Your task to perform on an android device: delete location history Image 0: 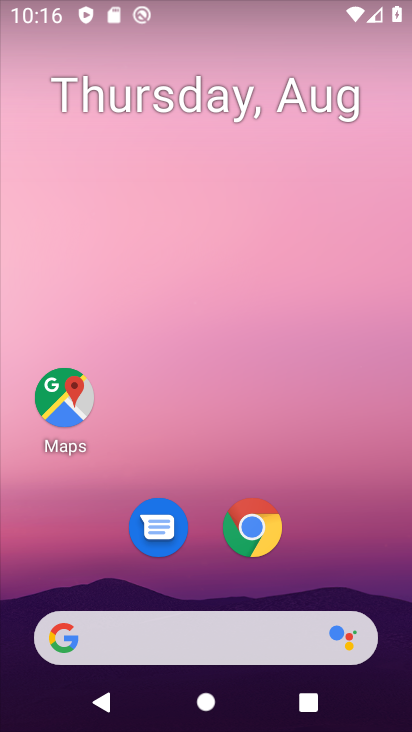
Step 0: drag from (178, 702) to (294, 40)
Your task to perform on an android device: delete location history Image 1: 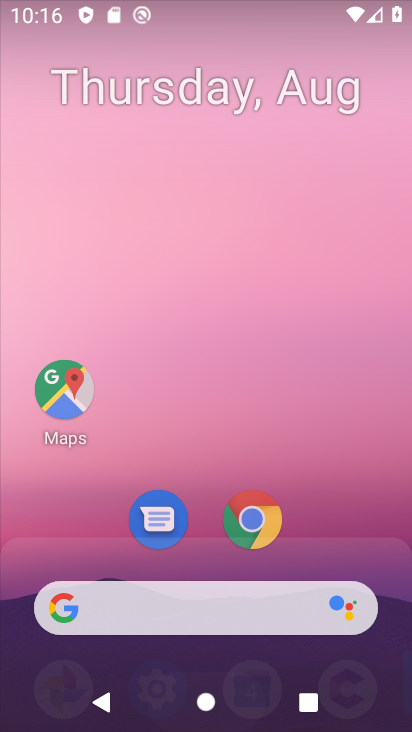
Step 1: click (294, 40)
Your task to perform on an android device: delete location history Image 2: 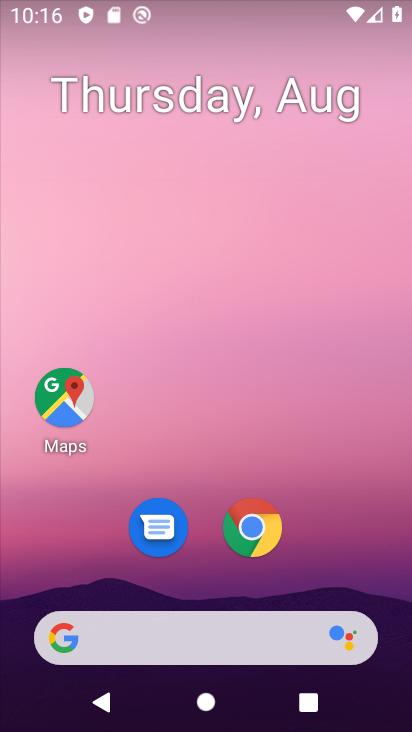
Step 2: click (87, 391)
Your task to perform on an android device: delete location history Image 3: 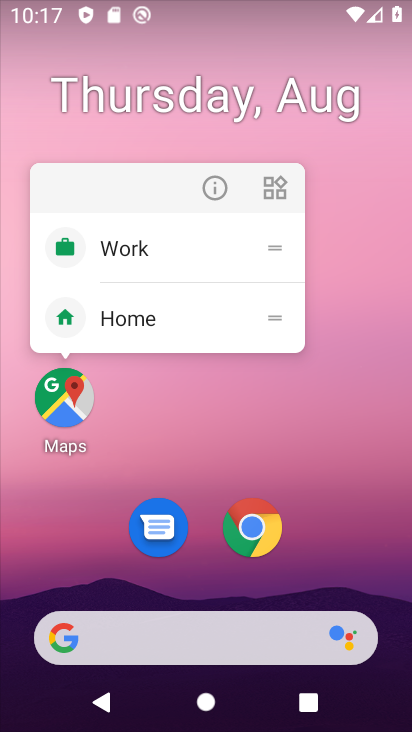
Step 3: click (56, 397)
Your task to perform on an android device: delete location history Image 4: 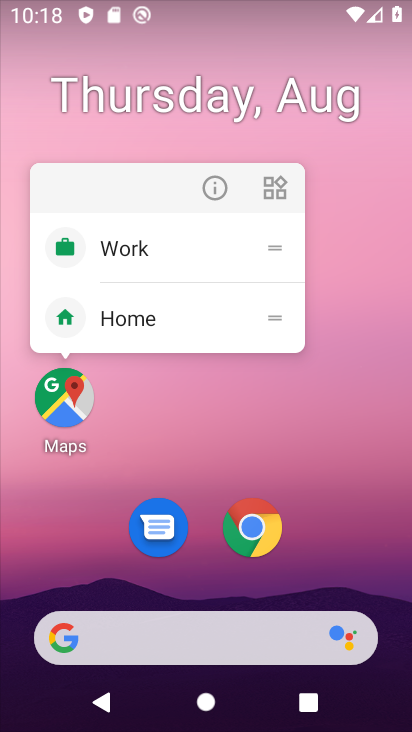
Step 4: click (63, 367)
Your task to perform on an android device: delete location history Image 5: 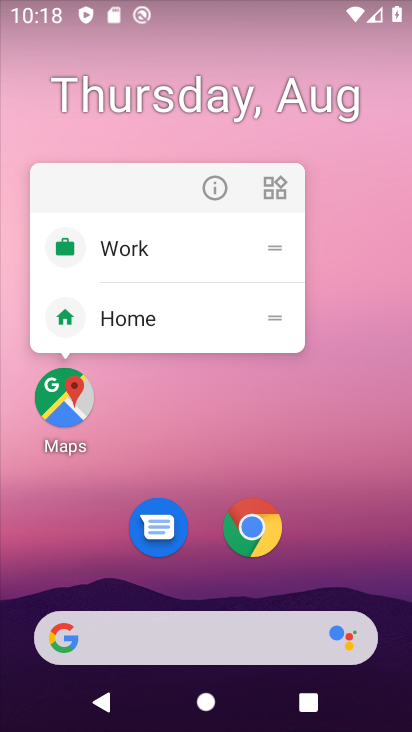
Step 5: click (63, 367)
Your task to perform on an android device: delete location history Image 6: 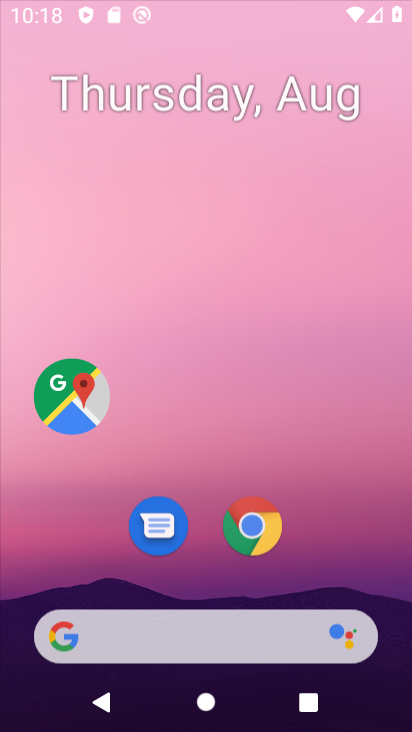
Step 6: click (61, 384)
Your task to perform on an android device: delete location history Image 7: 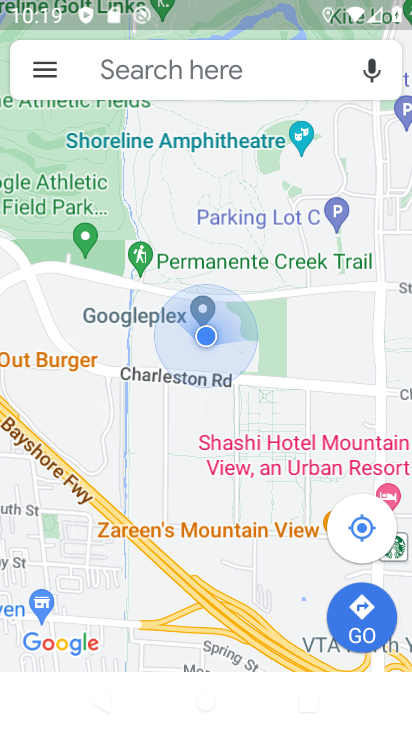
Step 7: click (60, 73)
Your task to perform on an android device: delete location history Image 8: 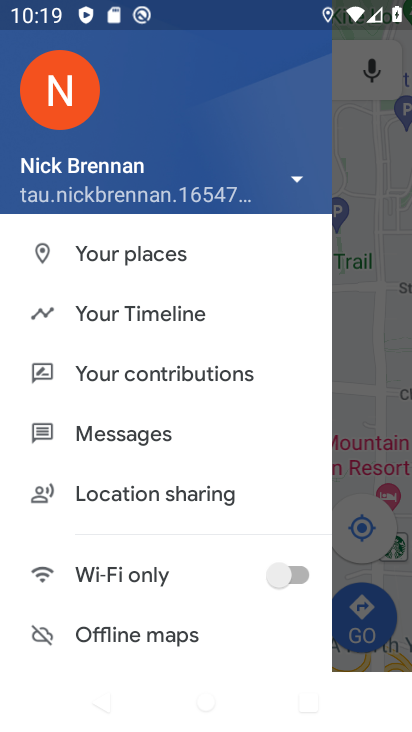
Step 8: click (212, 308)
Your task to perform on an android device: delete location history Image 9: 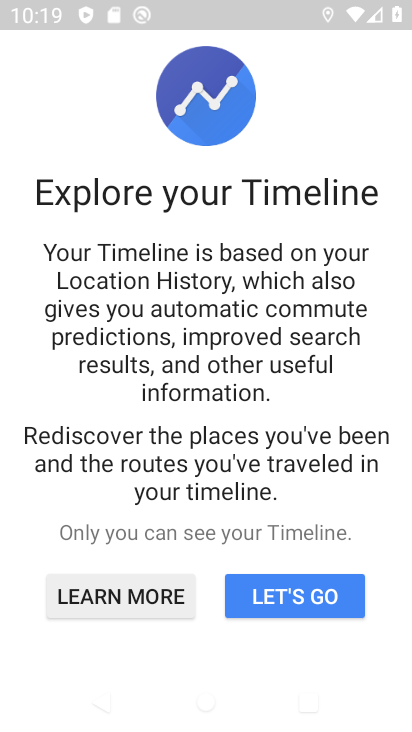
Step 9: click (332, 608)
Your task to perform on an android device: delete location history Image 10: 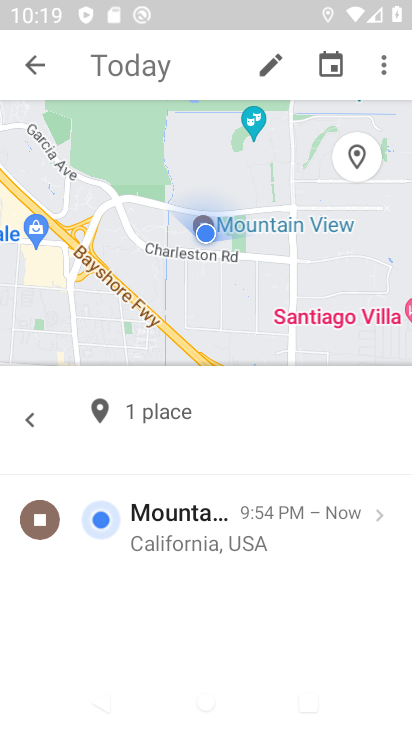
Step 10: click (383, 61)
Your task to perform on an android device: delete location history Image 11: 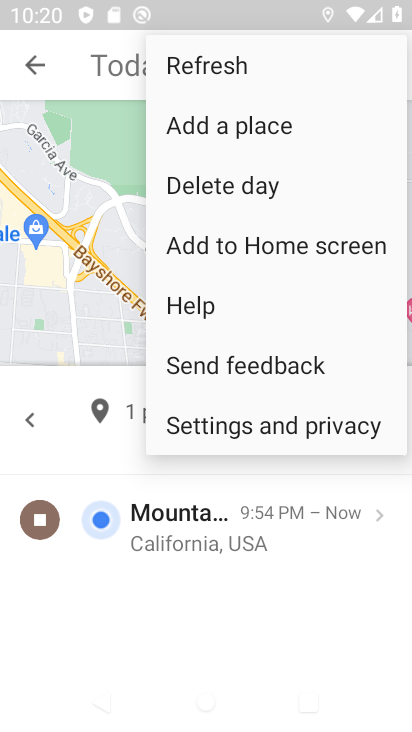
Step 11: click (298, 422)
Your task to perform on an android device: delete location history Image 12: 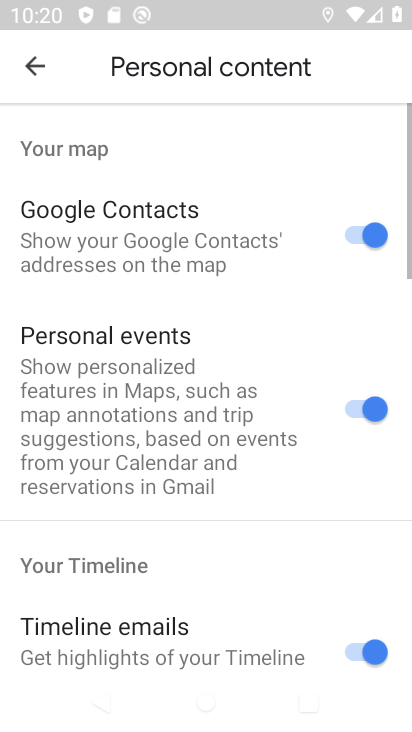
Step 12: drag from (194, 643) to (356, 21)
Your task to perform on an android device: delete location history Image 13: 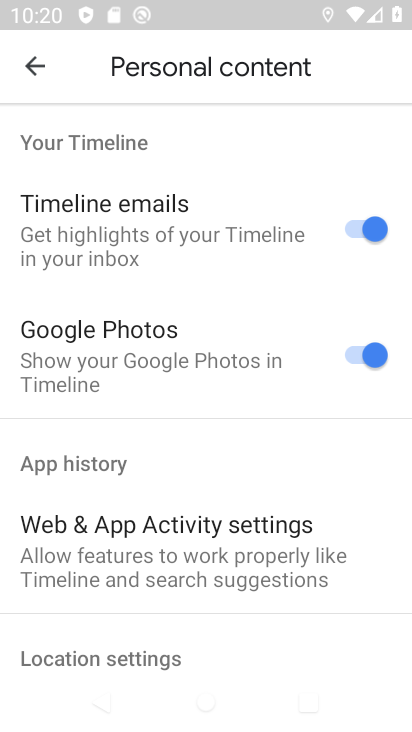
Step 13: drag from (222, 595) to (370, 41)
Your task to perform on an android device: delete location history Image 14: 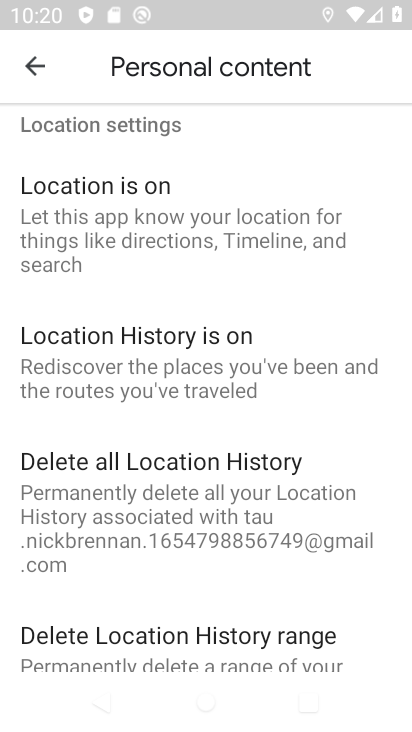
Step 14: click (302, 511)
Your task to perform on an android device: delete location history Image 15: 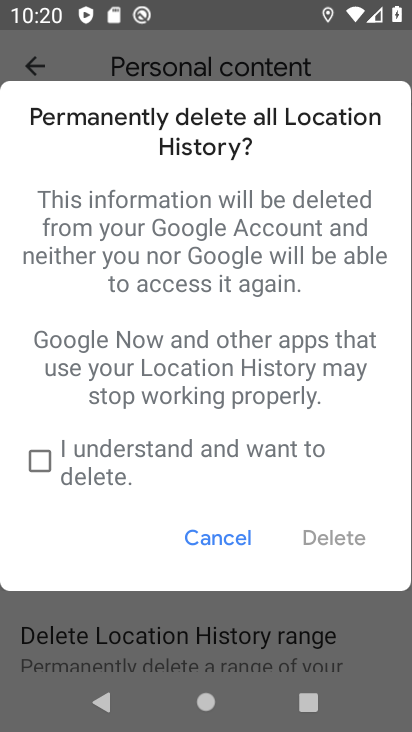
Step 15: click (101, 468)
Your task to perform on an android device: delete location history Image 16: 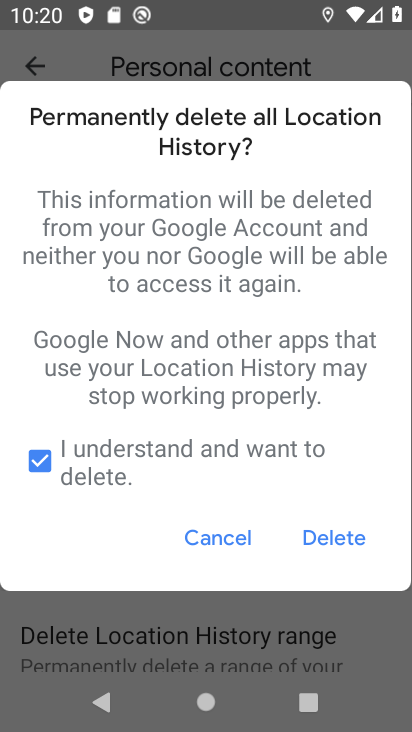
Step 16: click (342, 543)
Your task to perform on an android device: delete location history Image 17: 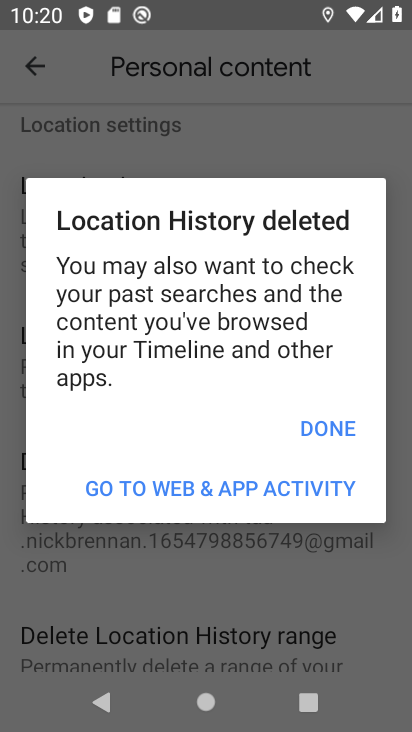
Step 17: click (348, 422)
Your task to perform on an android device: delete location history Image 18: 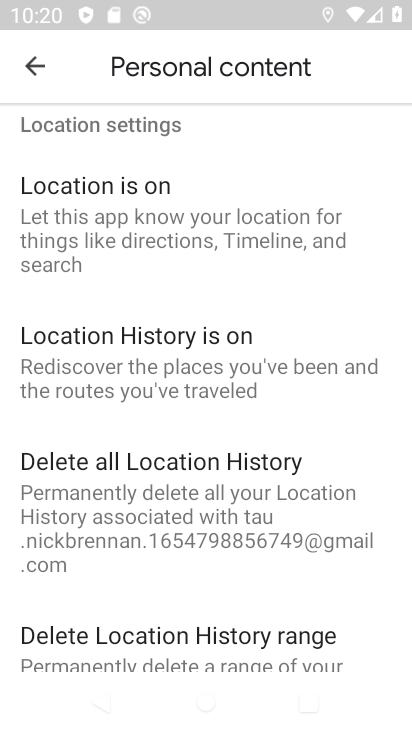
Step 18: task complete